Your task to perform on an android device: Go to ESPN.com Image 0: 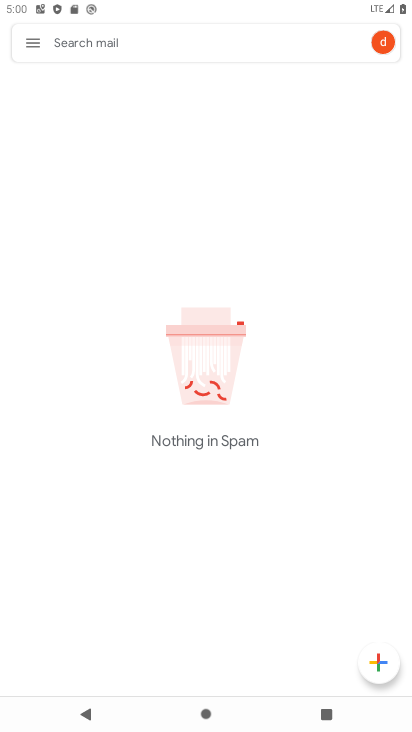
Step 0: press back button
Your task to perform on an android device: Go to ESPN.com Image 1: 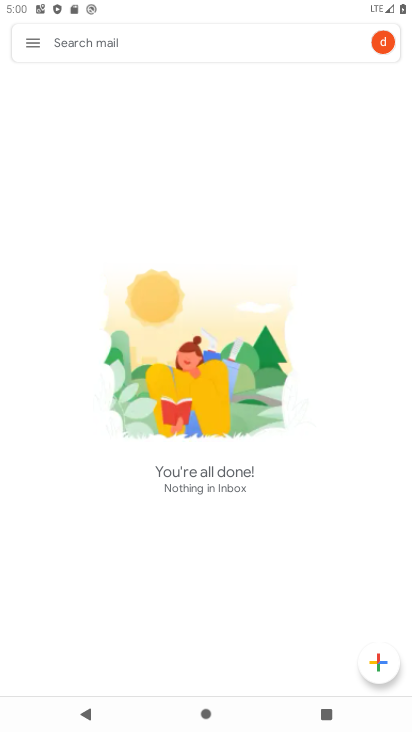
Step 1: press home button
Your task to perform on an android device: Go to ESPN.com Image 2: 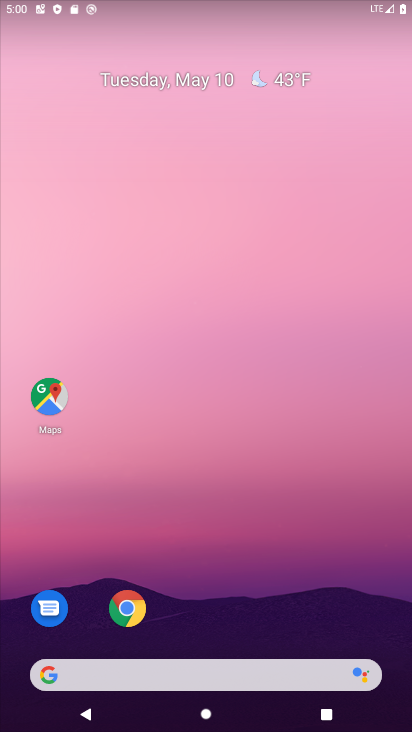
Step 2: click (125, 617)
Your task to perform on an android device: Go to ESPN.com Image 3: 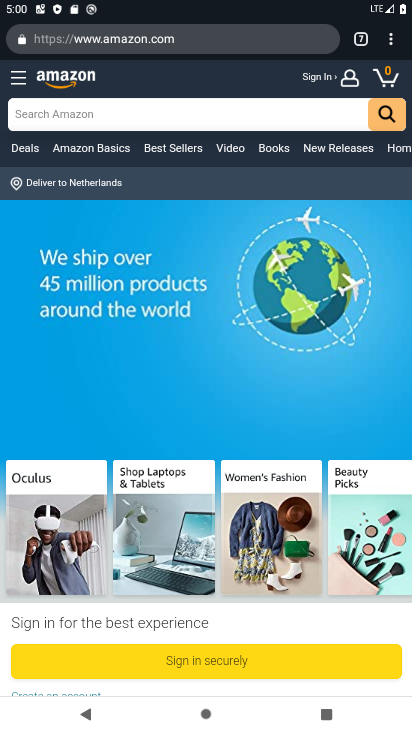
Step 3: click (362, 37)
Your task to perform on an android device: Go to ESPN.com Image 4: 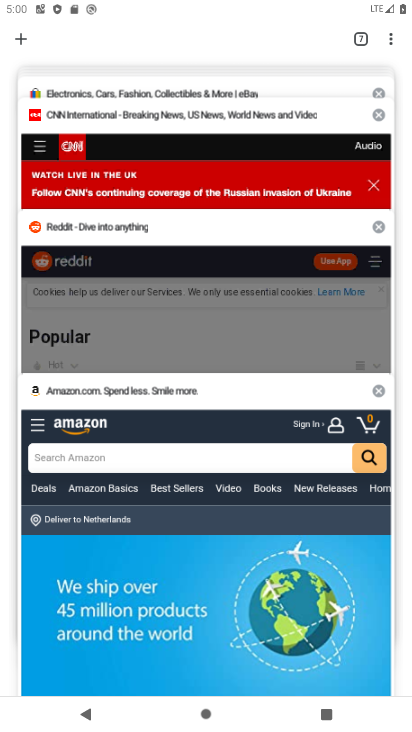
Step 4: click (30, 39)
Your task to perform on an android device: Go to ESPN.com Image 5: 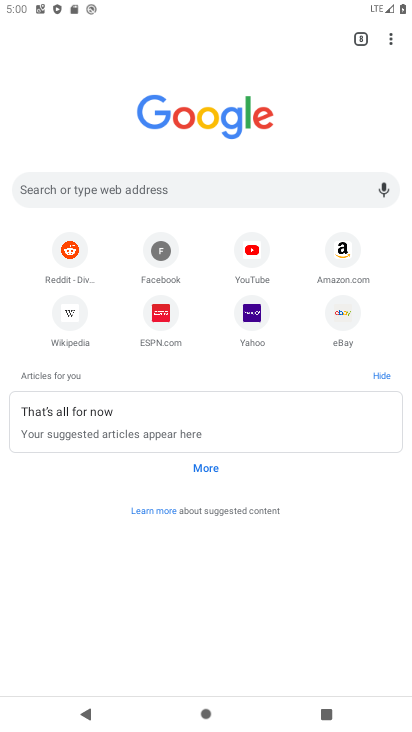
Step 5: click (141, 328)
Your task to perform on an android device: Go to ESPN.com Image 6: 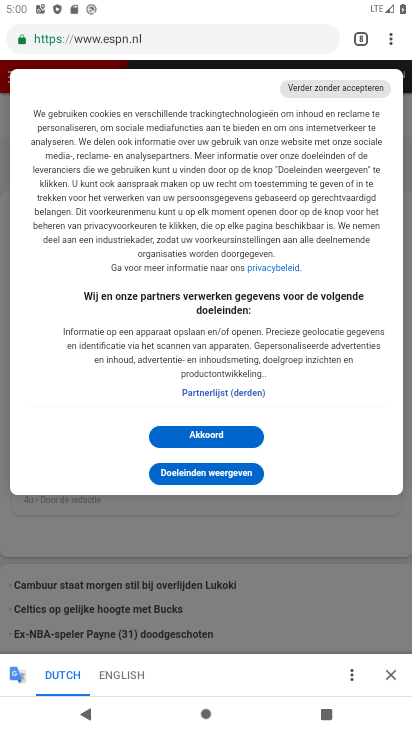
Step 6: task complete